Your task to perform on an android device: find which apps use the phone's location Image 0: 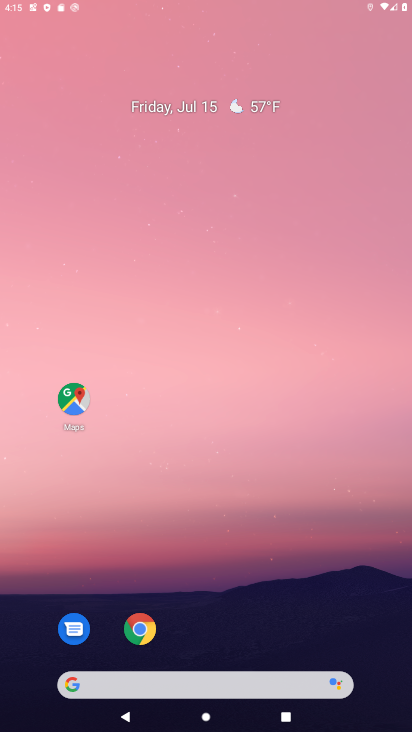
Step 0: press home button
Your task to perform on an android device: find which apps use the phone's location Image 1: 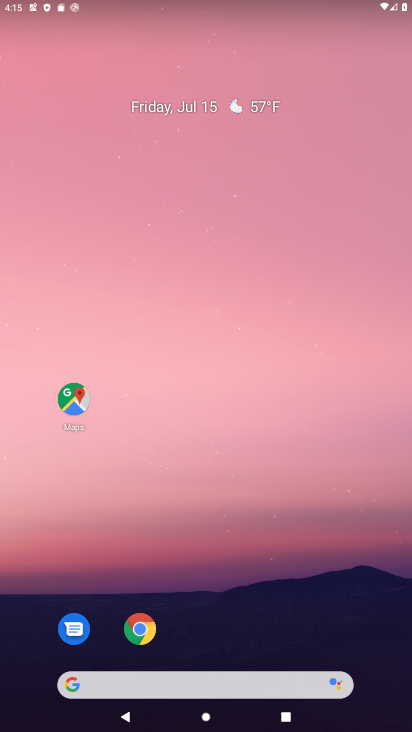
Step 1: drag from (239, 633) to (353, 0)
Your task to perform on an android device: find which apps use the phone's location Image 2: 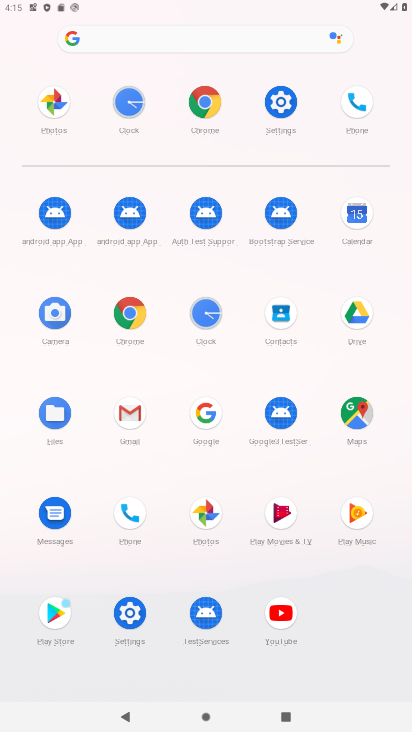
Step 2: click (277, 119)
Your task to perform on an android device: find which apps use the phone's location Image 3: 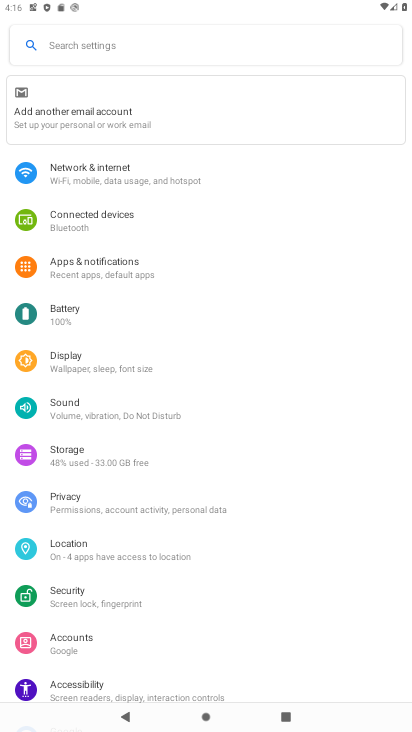
Step 3: click (73, 551)
Your task to perform on an android device: find which apps use the phone's location Image 4: 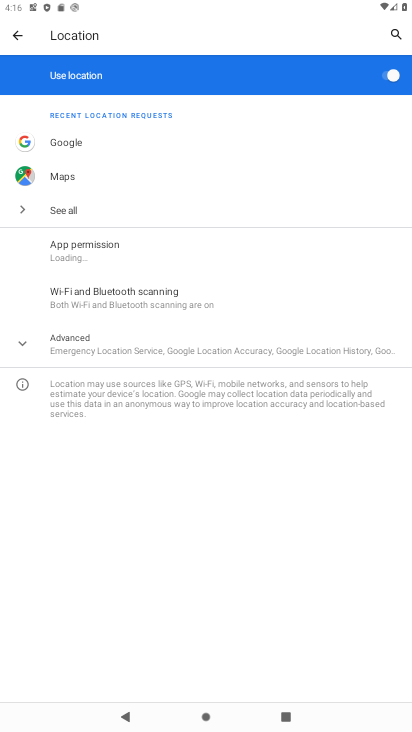
Step 4: click (89, 247)
Your task to perform on an android device: find which apps use the phone's location Image 5: 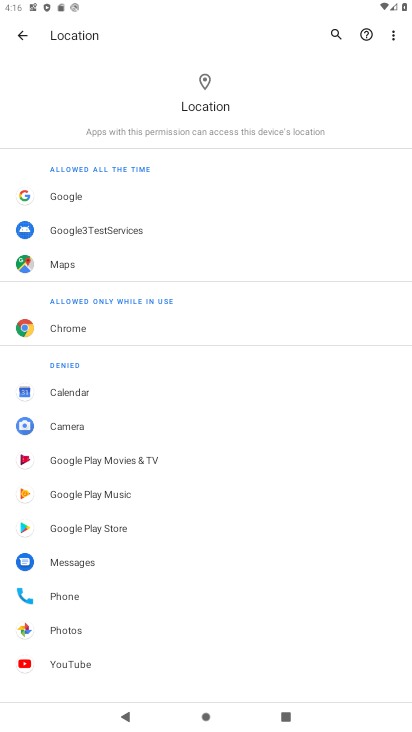
Step 5: task complete